Your task to perform on an android device: move a message to another label in the gmail app Image 0: 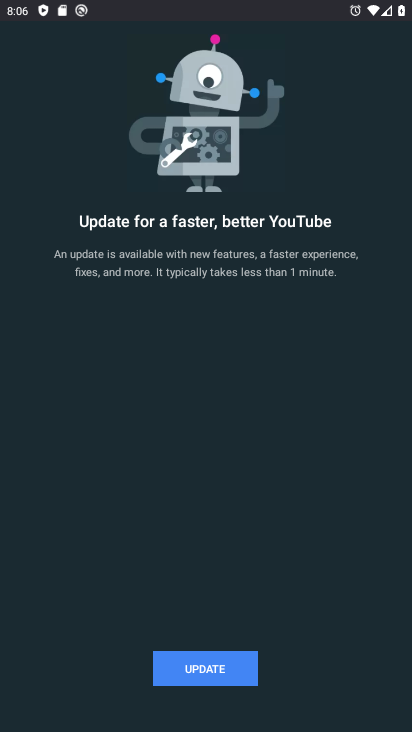
Step 0: press home button
Your task to perform on an android device: move a message to another label in the gmail app Image 1: 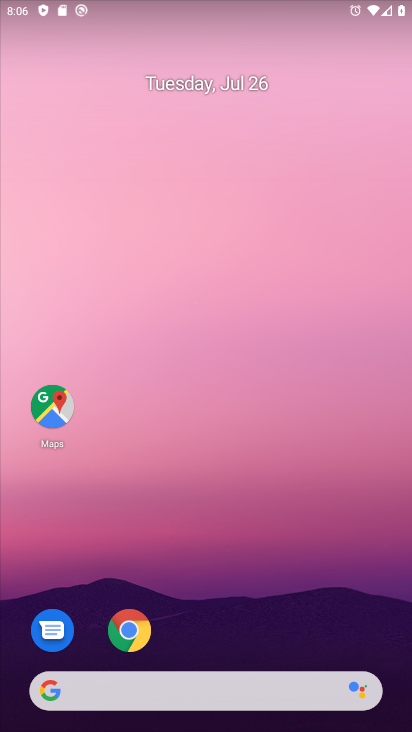
Step 1: drag from (180, 680) to (303, 102)
Your task to perform on an android device: move a message to another label in the gmail app Image 2: 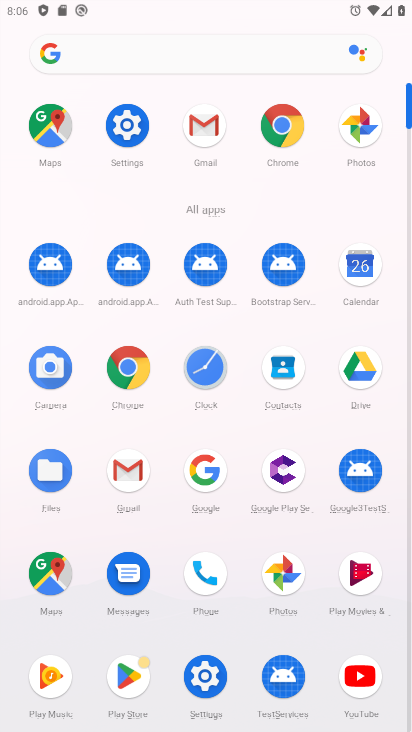
Step 2: click (202, 123)
Your task to perform on an android device: move a message to another label in the gmail app Image 3: 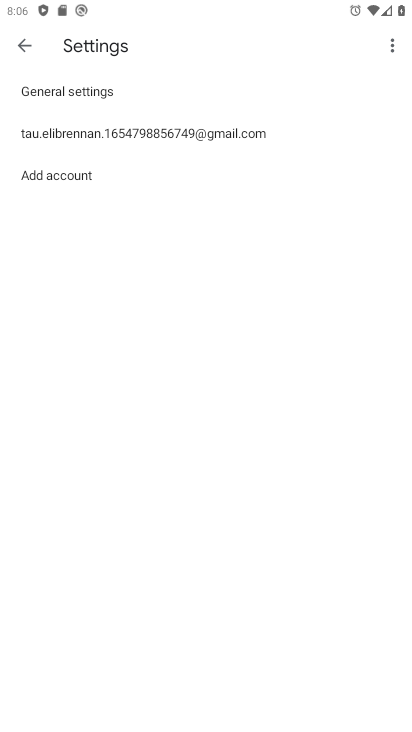
Step 3: click (172, 133)
Your task to perform on an android device: move a message to another label in the gmail app Image 4: 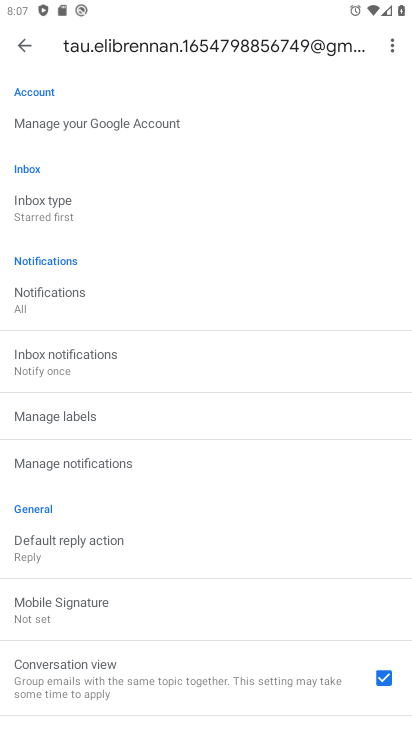
Step 4: press back button
Your task to perform on an android device: move a message to another label in the gmail app Image 5: 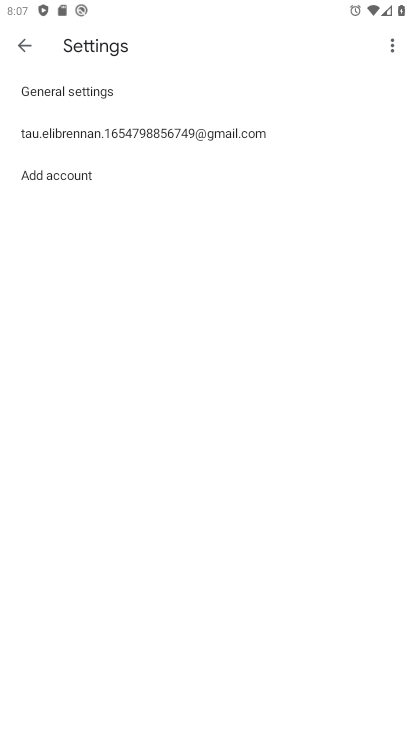
Step 5: press back button
Your task to perform on an android device: move a message to another label in the gmail app Image 6: 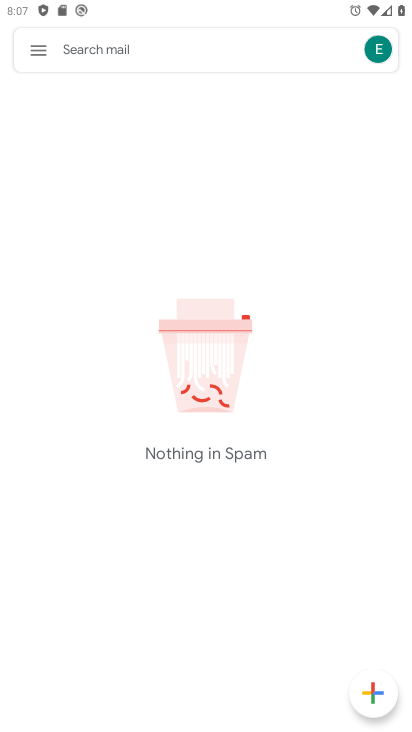
Step 6: click (36, 46)
Your task to perform on an android device: move a message to another label in the gmail app Image 7: 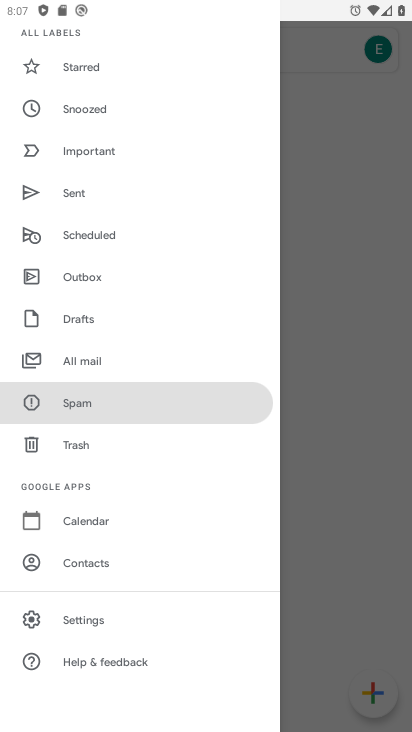
Step 7: drag from (118, 141) to (140, 317)
Your task to perform on an android device: move a message to another label in the gmail app Image 8: 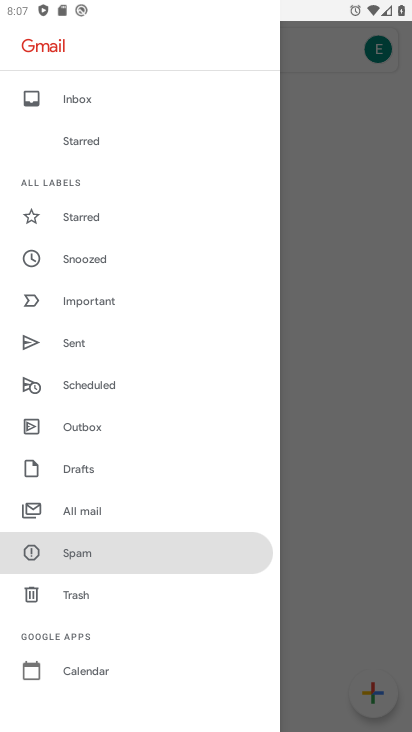
Step 8: click (84, 98)
Your task to perform on an android device: move a message to another label in the gmail app Image 9: 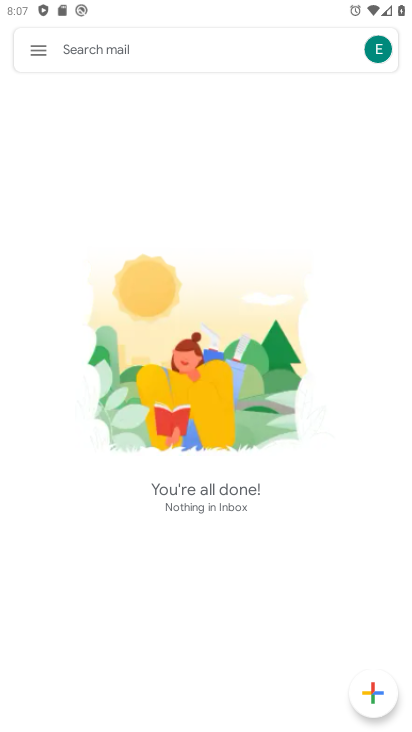
Step 9: click (25, 43)
Your task to perform on an android device: move a message to another label in the gmail app Image 10: 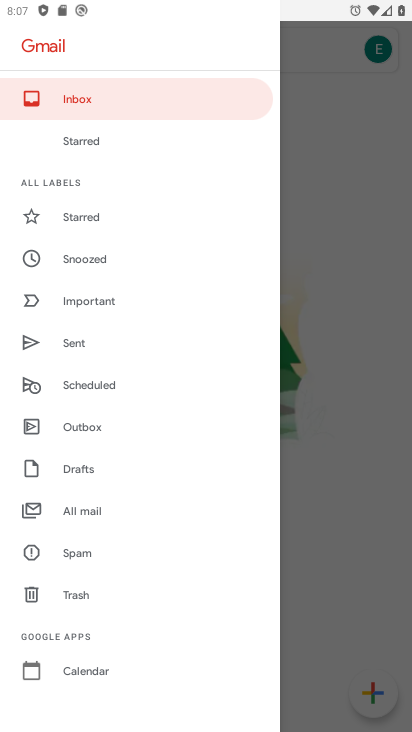
Step 10: click (86, 145)
Your task to perform on an android device: move a message to another label in the gmail app Image 11: 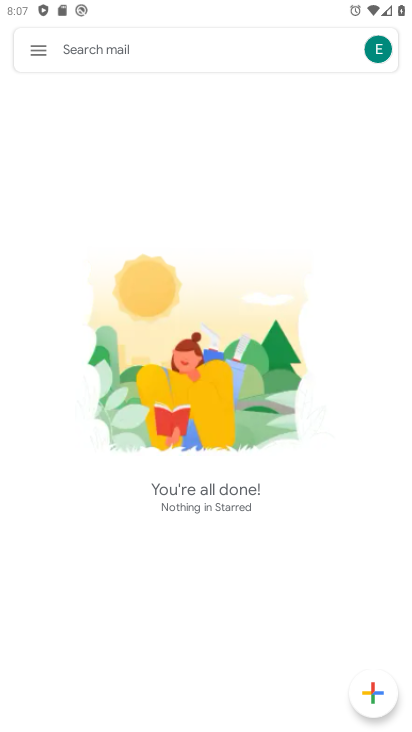
Step 11: click (39, 51)
Your task to perform on an android device: move a message to another label in the gmail app Image 12: 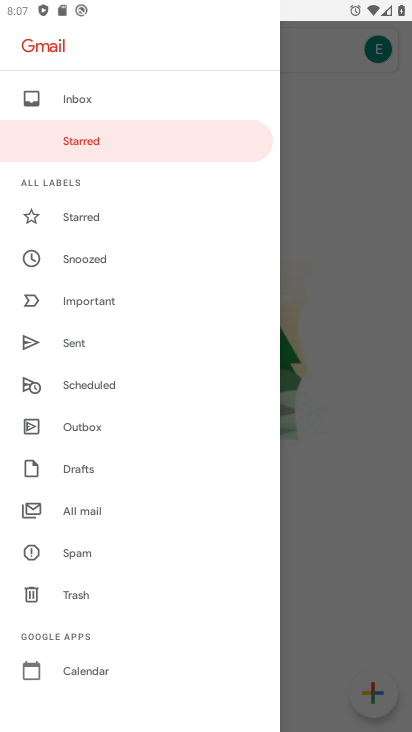
Step 12: click (84, 222)
Your task to perform on an android device: move a message to another label in the gmail app Image 13: 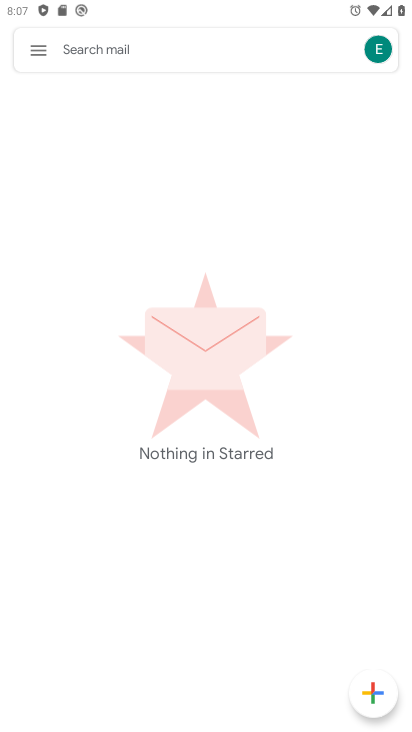
Step 13: click (40, 36)
Your task to perform on an android device: move a message to another label in the gmail app Image 14: 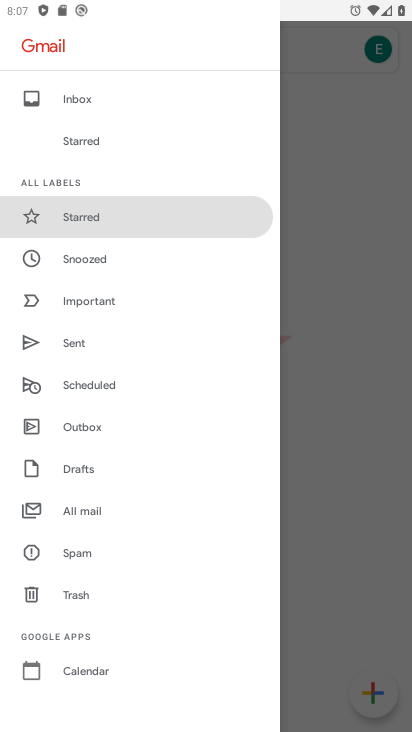
Step 14: click (81, 256)
Your task to perform on an android device: move a message to another label in the gmail app Image 15: 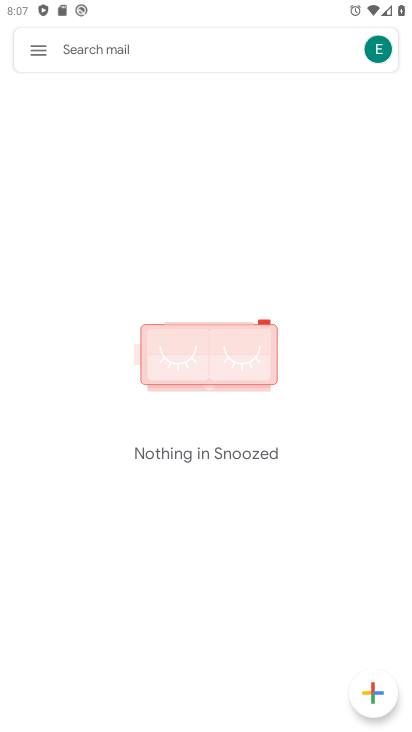
Step 15: click (41, 49)
Your task to perform on an android device: move a message to another label in the gmail app Image 16: 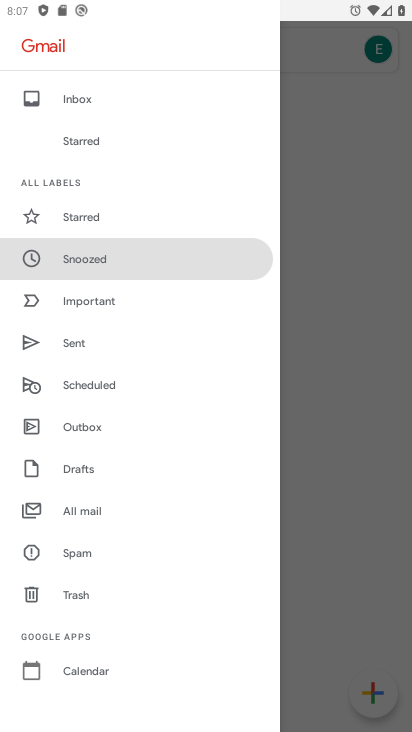
Step 16: click (76, 305)
Your task to perform on an android device: move a message to another label in the gmail app Image 17: 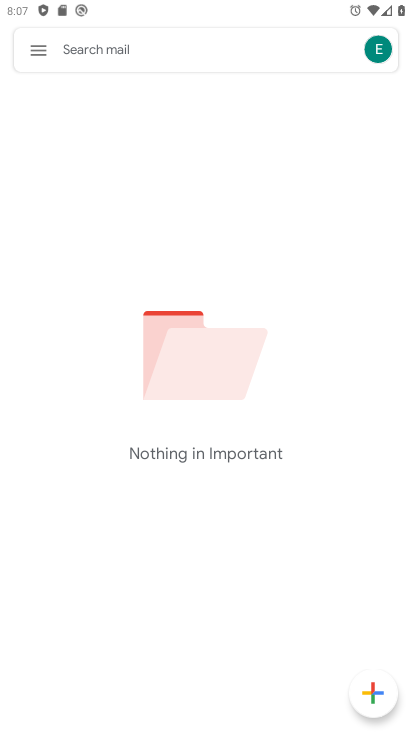
Step 17: click (38, 48)
Your task to perform on an android device: move a message to another label in the gmail app Image 18: 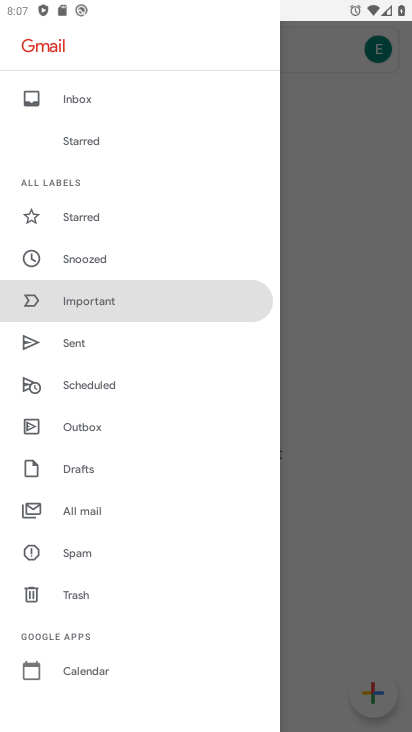
Step 18: click (77, 337)
Your task to perform on an android device: move a message to another label in the gmail app Image 19: 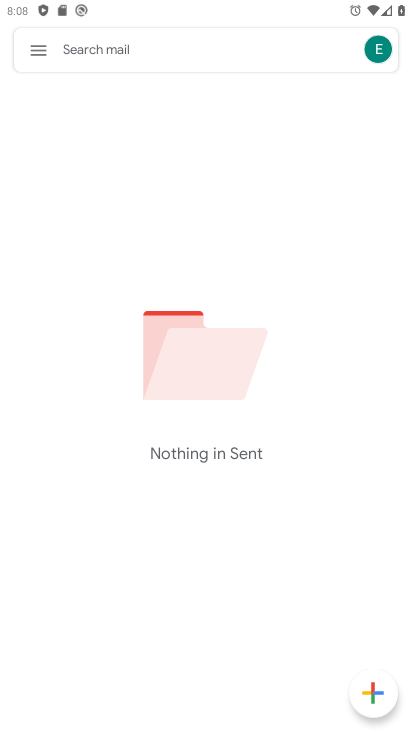
Step 19: click (47, 46)
Your task to perform on an android device: move a message to another label in the gmail app Image 20: 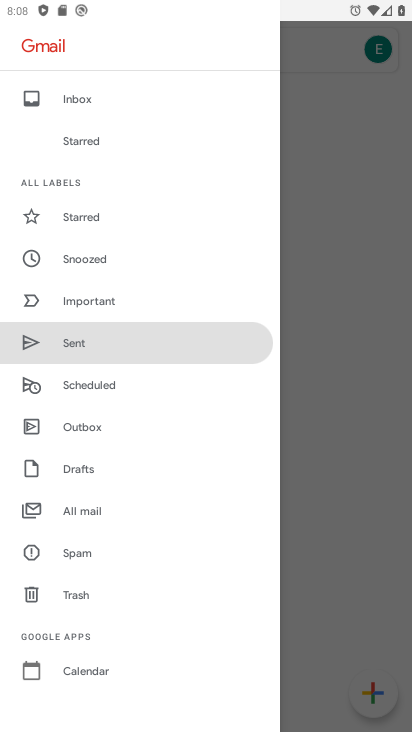
Step 20: click (73, 387)
Your task to perform on an android device: move a message to another label in the gmail app Image 21: 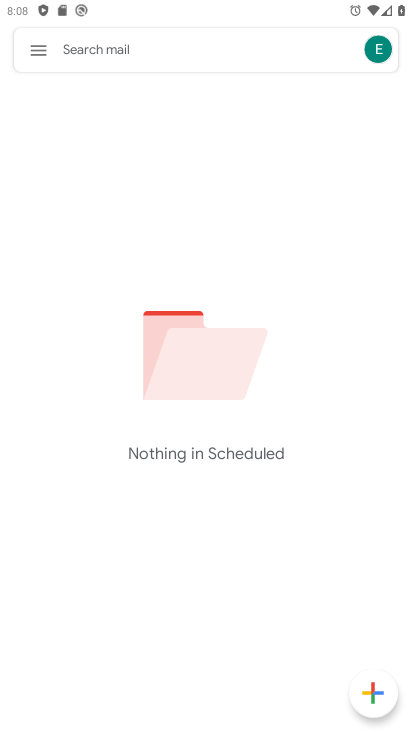
Step 21: click (42, 56)
Your task to perform on an android device: move a message to another label in the gmail app Image 22: 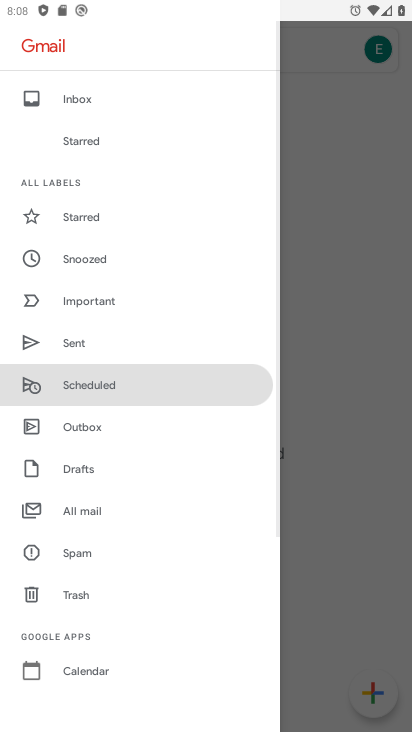
Step 22: click (88, 430)
Your task to perform on an android device: move a message to another label in the gmail app Image 23: 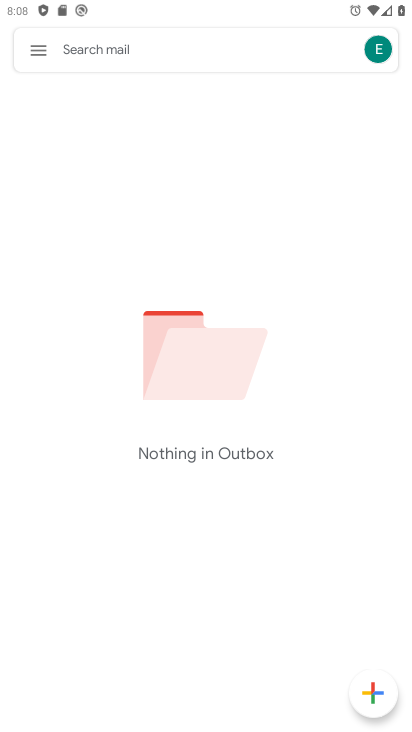
Step 23: click (35, 53)
Your task to perform on an android device: move a message to another label in the gmail app Image 24: 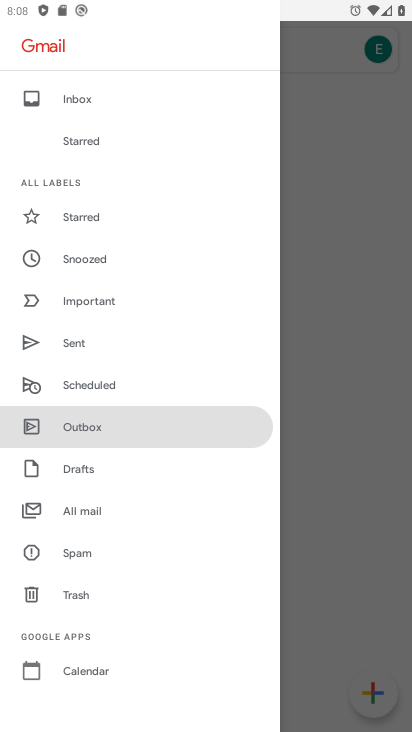
Step 24: click (67, 468)
Your task to perform on an android device: move a message to another label in the gmail app Image 25: 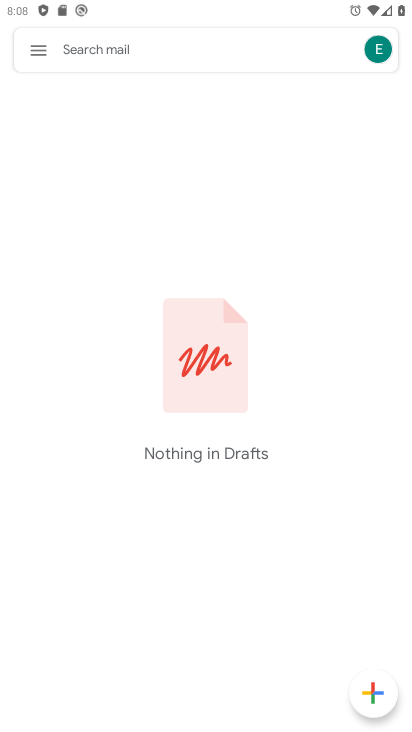
Step 25: click (33, 57)
Your task to perform on an android device: move a message to another label in the gmail app Image 26: 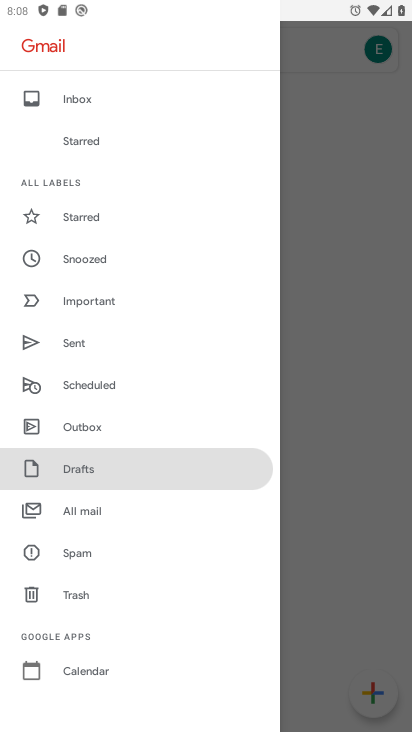
Step 26: click (93, 515)
Your task to perform on an android device: move a message to another label in the gmail app Image 27: 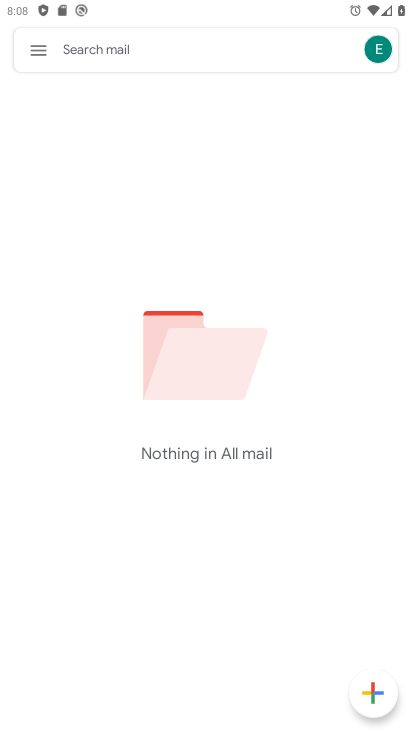
Step 27: click (38, 42)
Your task to perform on an android device: move a message to another label in the gmail app Image 28: 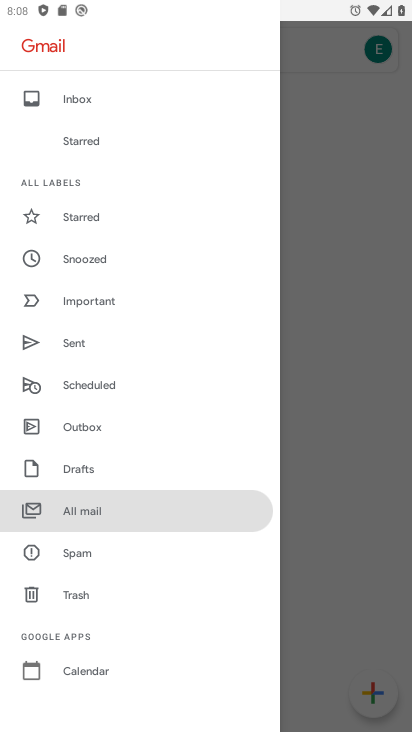
Step 28: click (79, 550)
Your task to perform on an android device: move a message to another label in the gmail app Image 29: 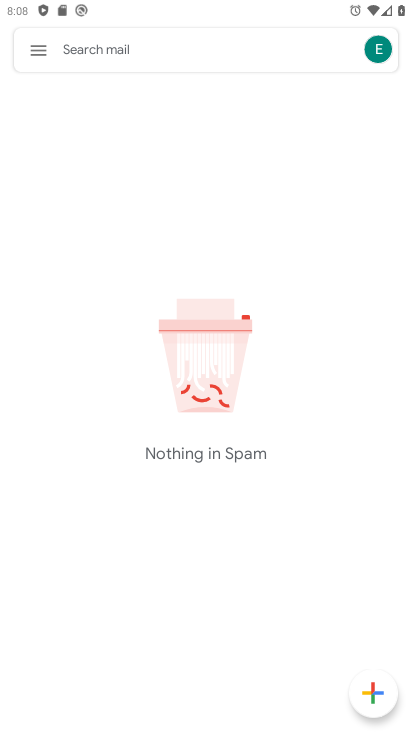
Step 29: click (44, 48)
Your task to perform on an android device: move a message to another label in the gmail app Image 30: 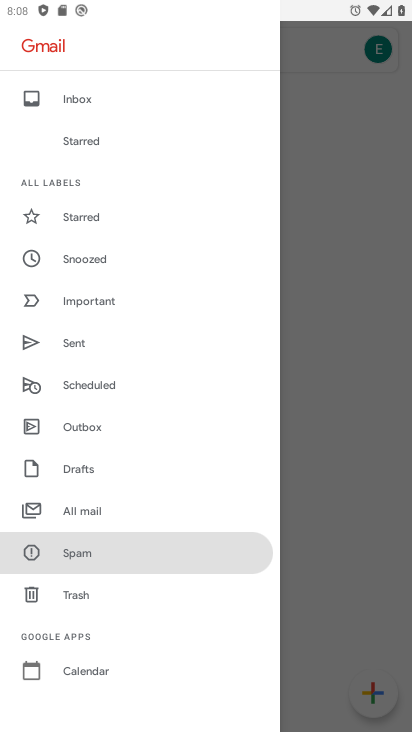
Step 30: drag from (114, 583) to (164, 431)
Your task to perform on an android device: move a message to another label in the gmail app Image 31: 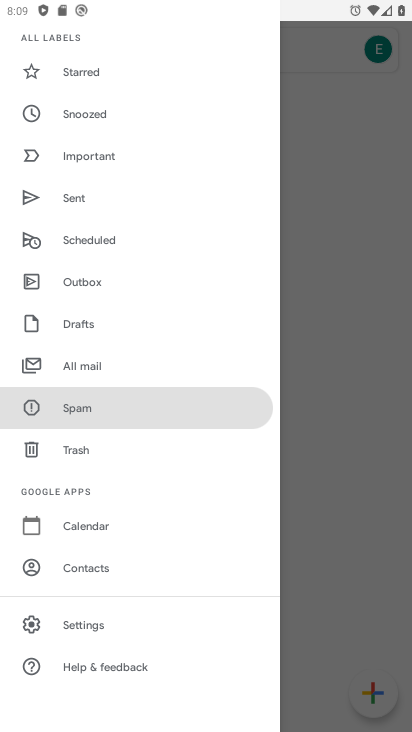
Step 31: click (91, 465)
Your task to perform on an android device: move a message to another label in the gmail app Image 32: 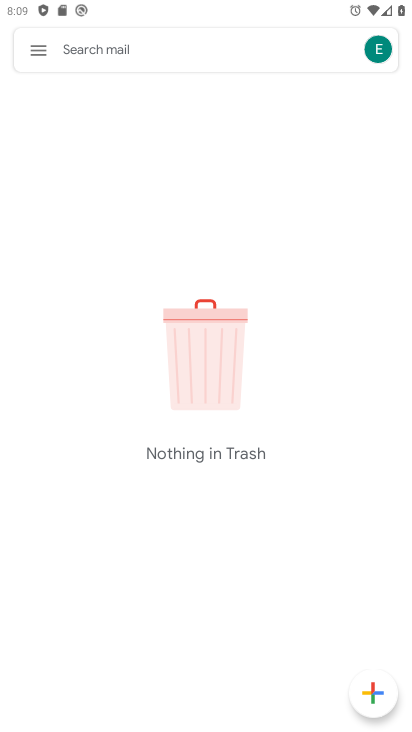
Step 32: task complete